Your task to perform on an android device: change keyboard looks Image 0: 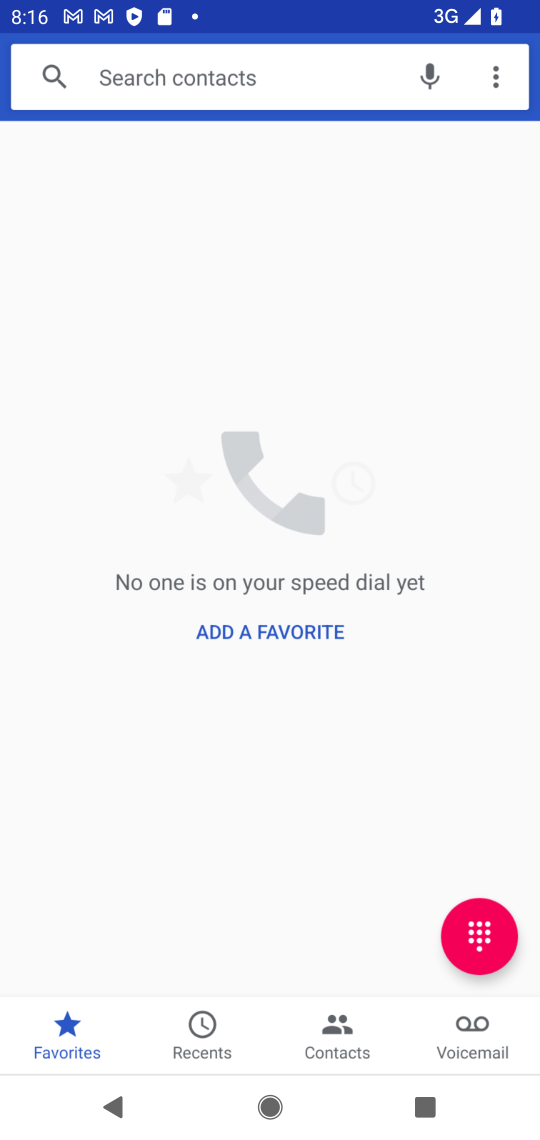
Step 0: press home button
Your task to perform on an android device: change keyboard looks Image 1: 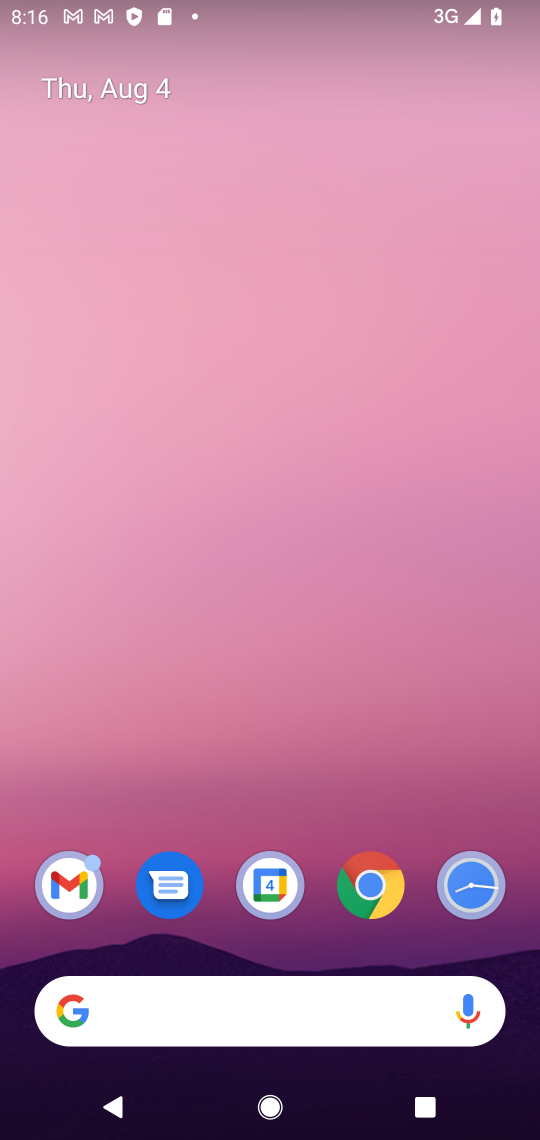
Step 1: click (327, 712)
Your task to perform on an android device: change keyboard looks Image 2: 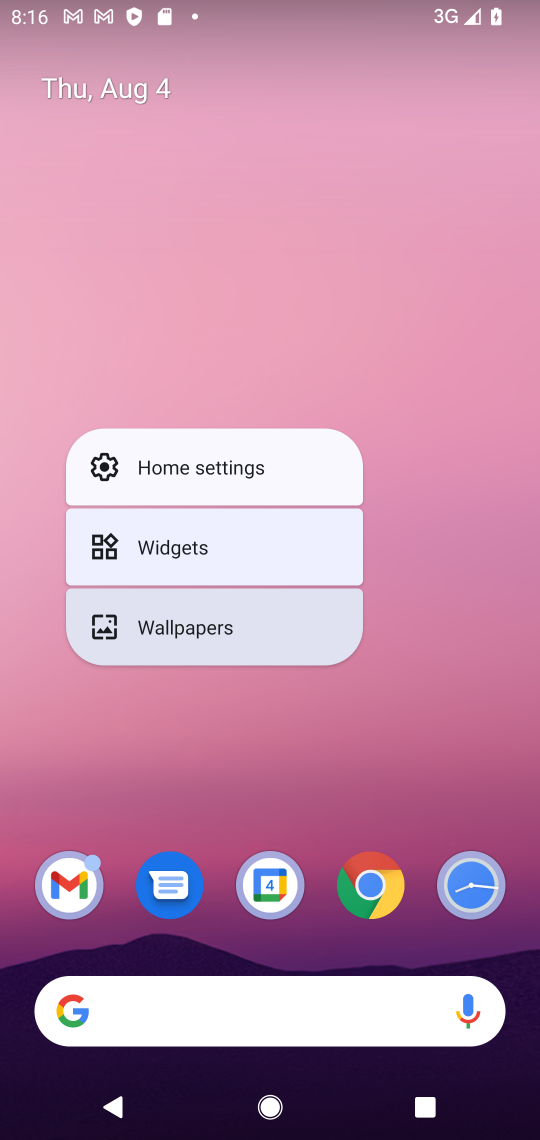
Step 2: press home button
Your task to perform on an android device: change keyboard looks Image 3: 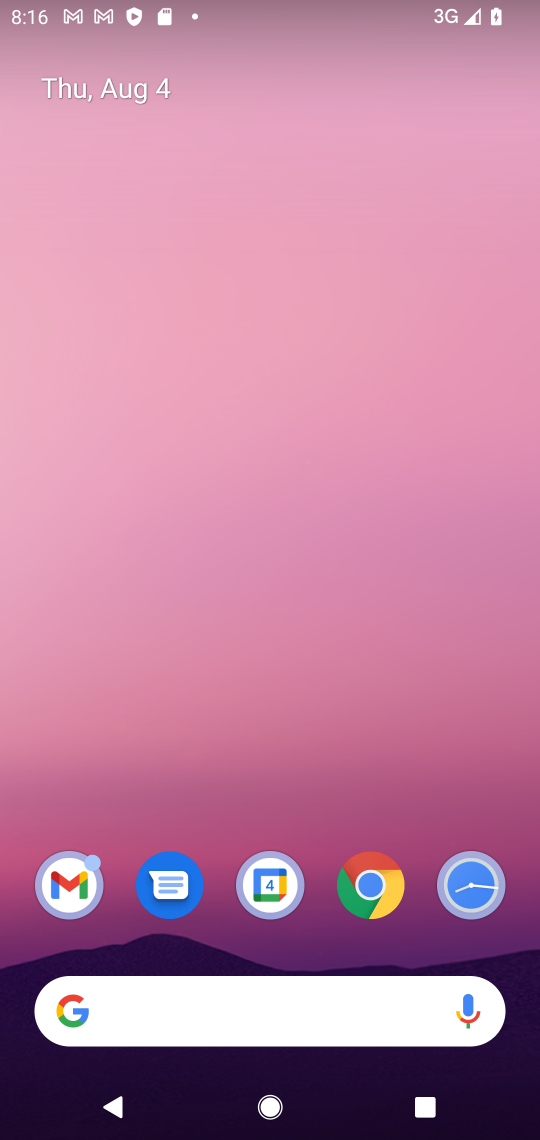
Step 3: drag from (221, 729) to (263, 92)
Your task to perform on an android device: change keyboard looks Image 4: 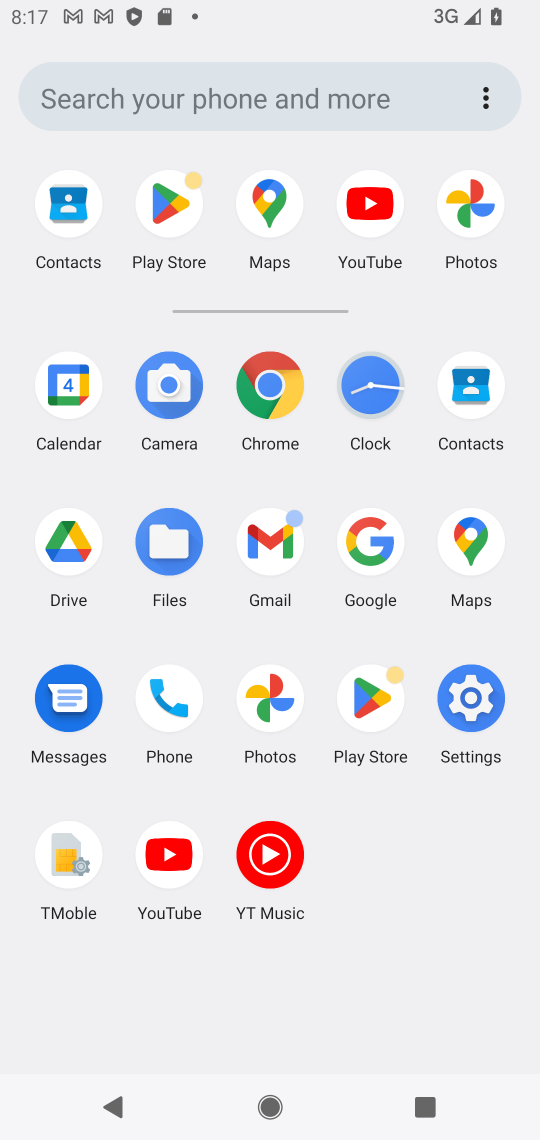
Step 4: click (481, 721)
Your task to perform on an android device: change keyboard looks Image 5: 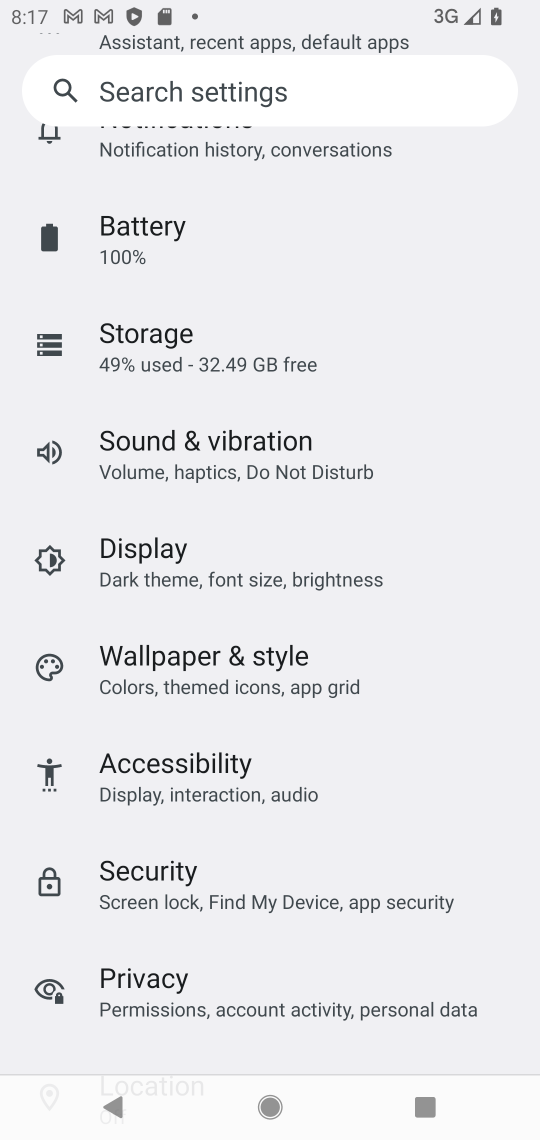
Step 5: drag from (191, 883) to (80, 297)
Your task to perform on an android device: change keyboard looks Image 6: 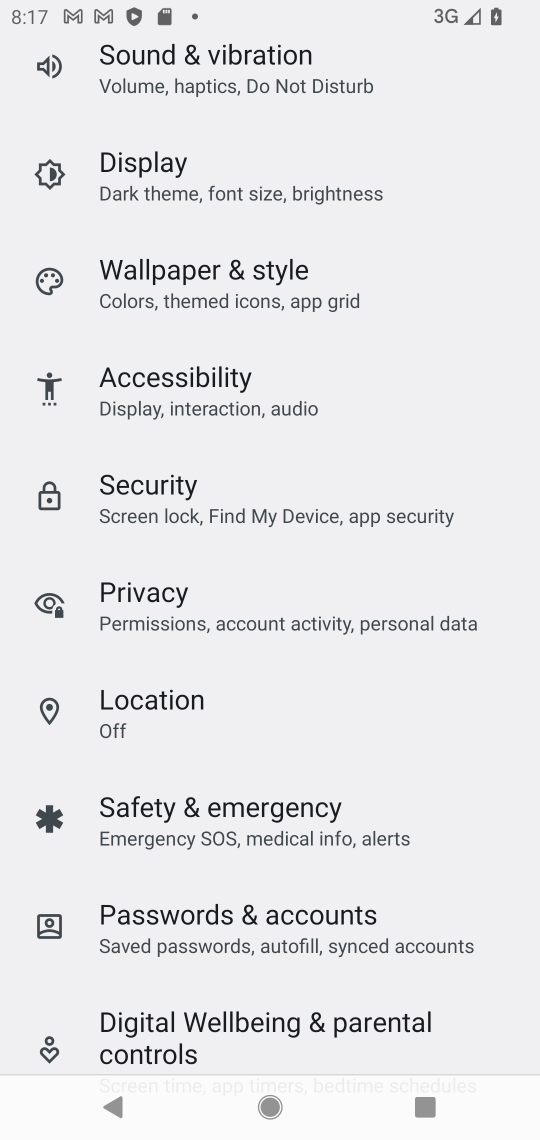
Step 6: drag from (206, 985) to (199, 471)
Your task to perform on an android device: change keyboard looks Image 7: 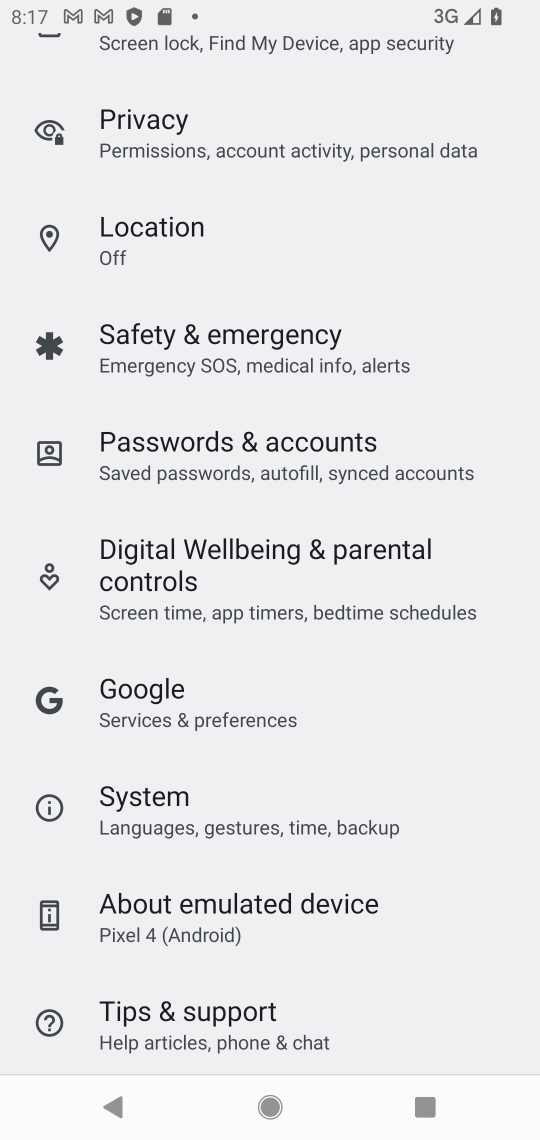
Step 7: click (173, 816)
Your task to perform on an android device: change keyboard looks Image 8: 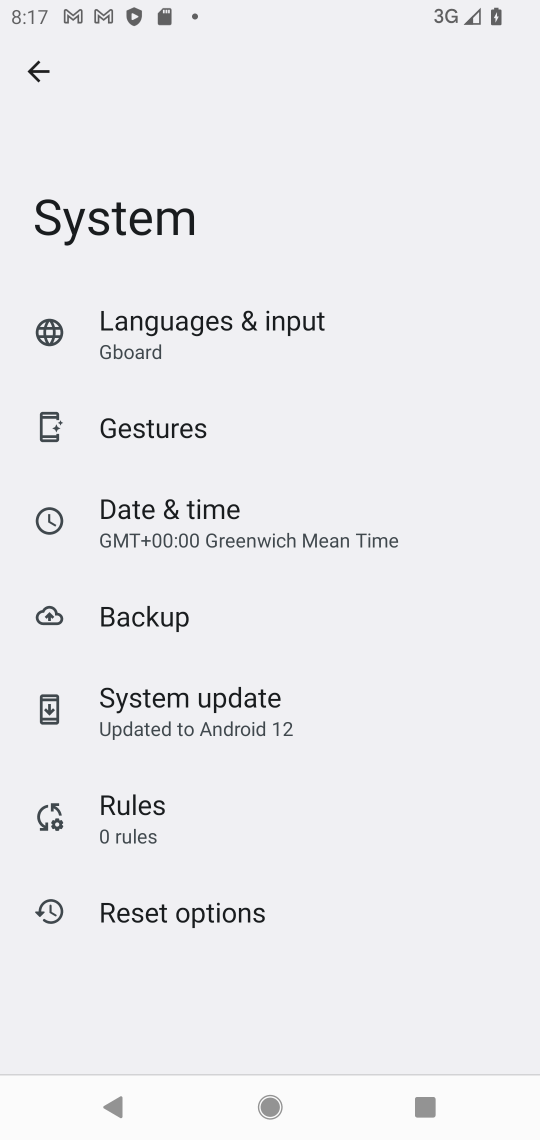
Step 8: click (129, 305)
Your task to perform on an android device: change keyboard looks Image 9: 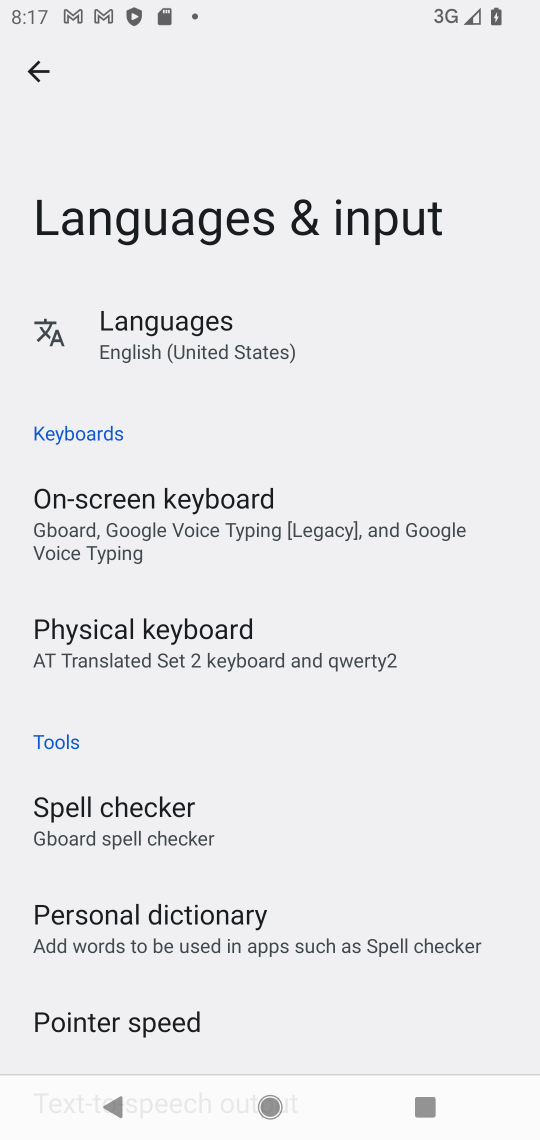
Step 9: click (201, 495)
Your task to perform on an android device: change keyboard looks Image 10: 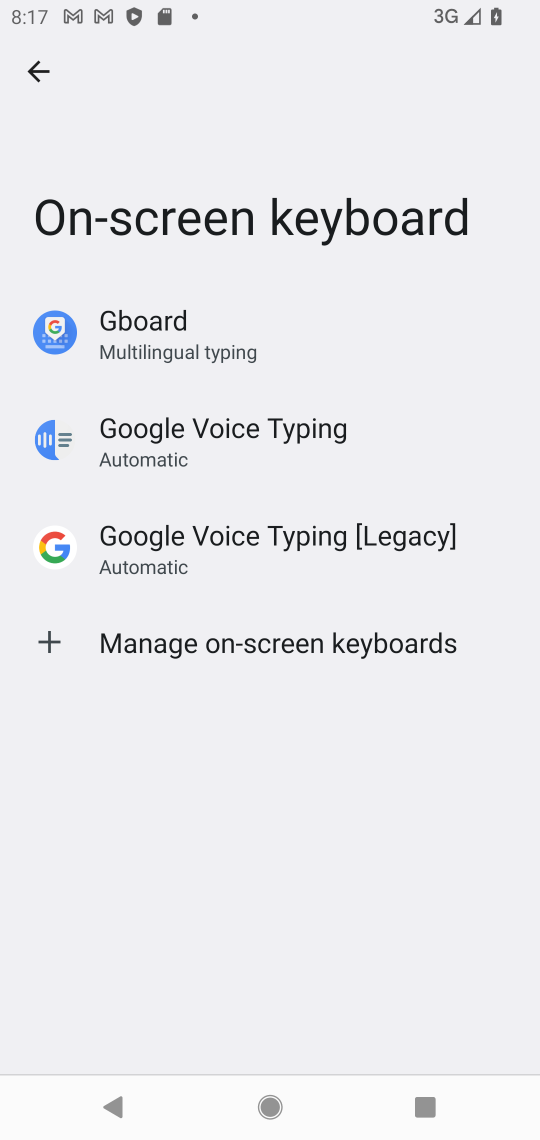
Step 10: click (150, 341)
Your task to perform on an android device: change keyboard looks Image 11: 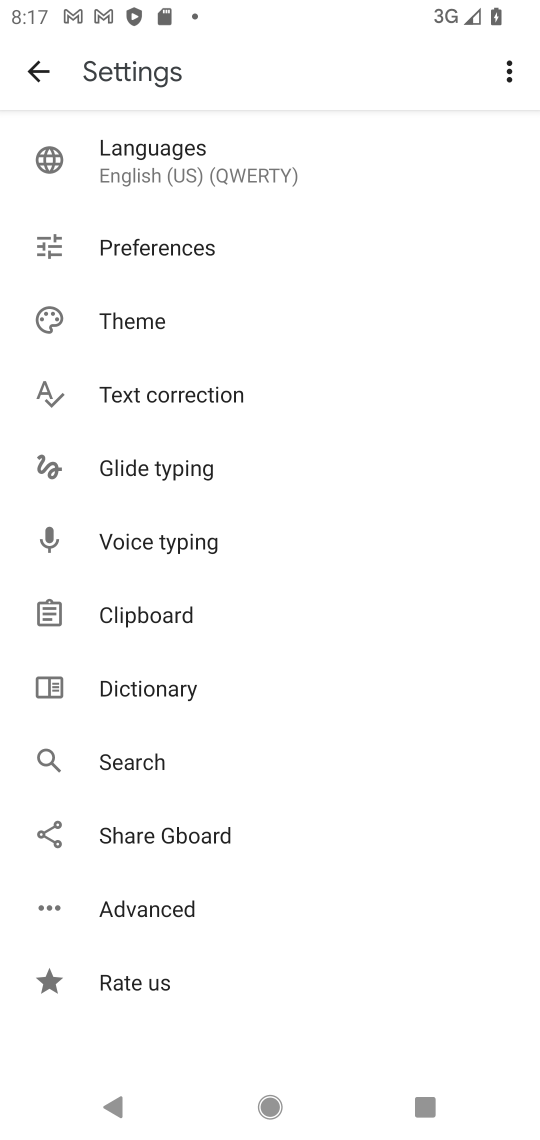
Step 11: click (142, 339)
Your task to perform on an android device: change keyboard looks Image 12: 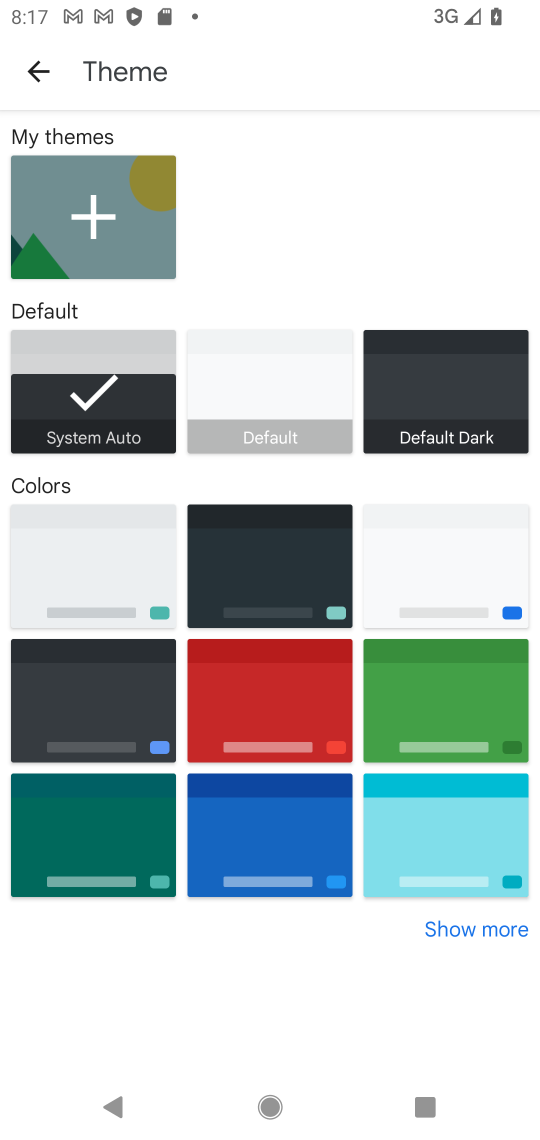
Step 12: click (450, 764)
Your task to perform on an android device: change keyboard looks Image 13: 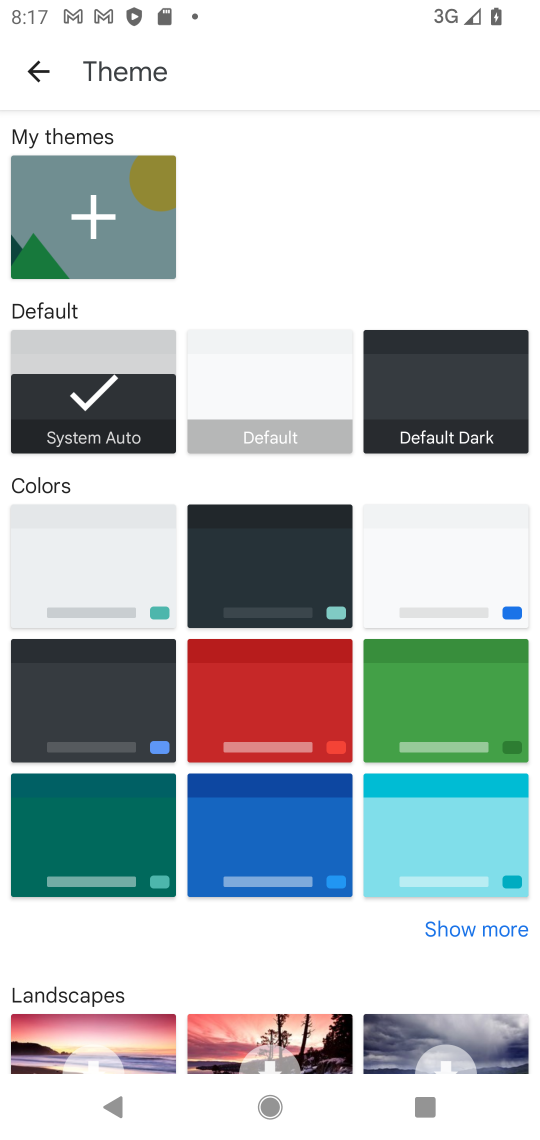
Step 13: click (450, 698)
Your task to perform on an android device: change keyboard looks Image 14: 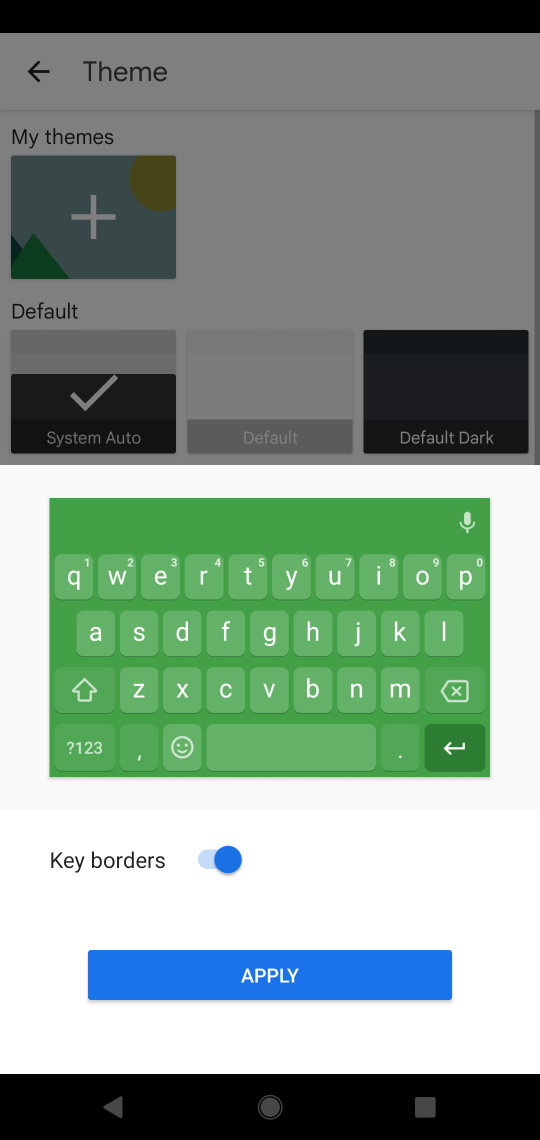
Step 14: click (326, 965)
Your task to perform on an android device: change keyboard looks Image 15: 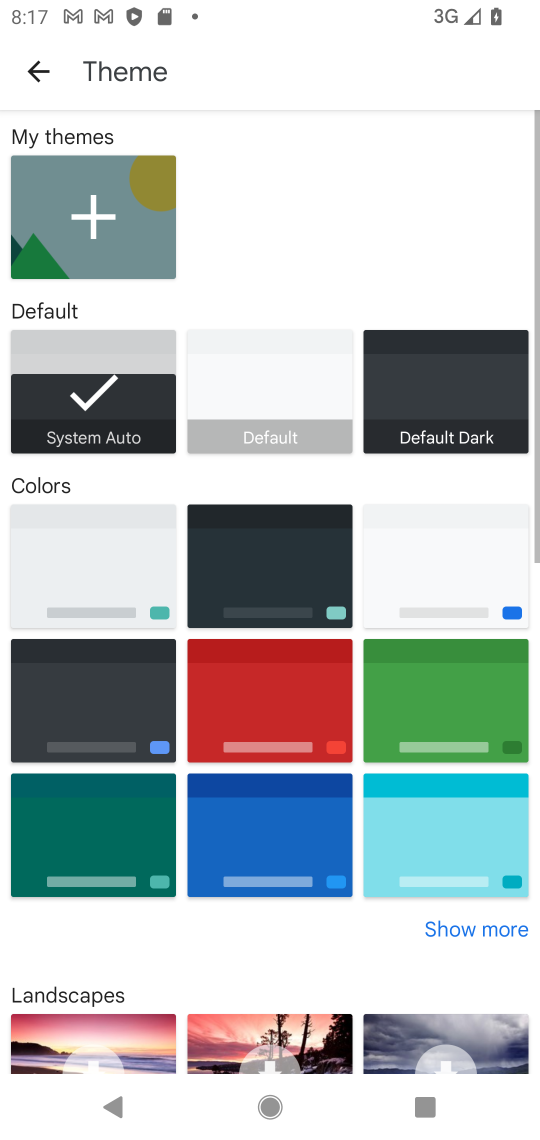
Step 15: task complete